Your task to perform on an android device: check battery use Image 0: 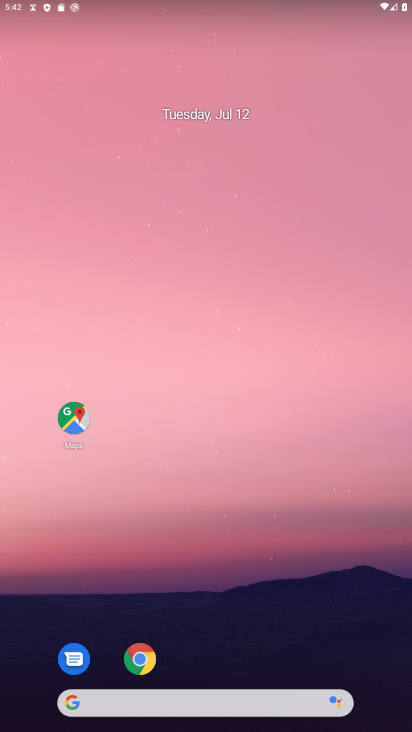
Step 0: drag from (238, 652) to (237, 24)
Your task to perform on an android device: check battery use Image 1: 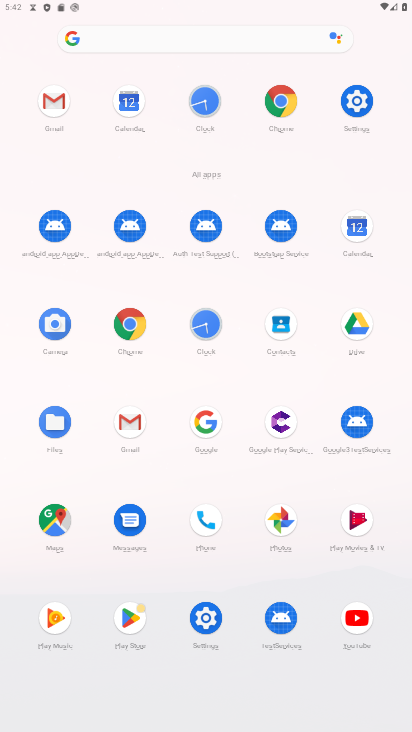
Step 1: click (210, 622)
Your task to perform on an android device: check battery use Image 2: 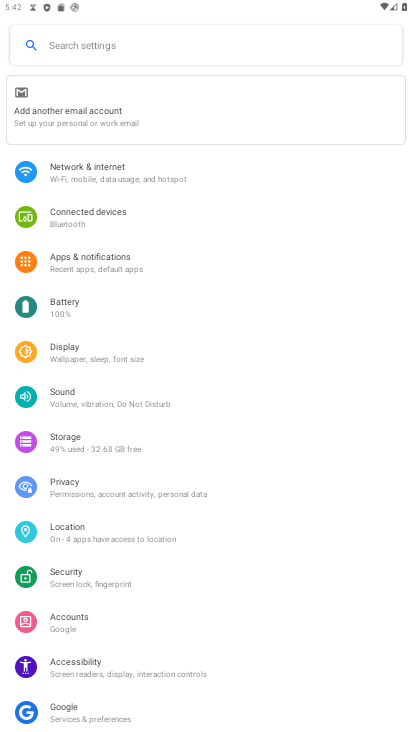
Step 2: click (91, 300)
Your task to perform on an android device: check battery use Image 3: 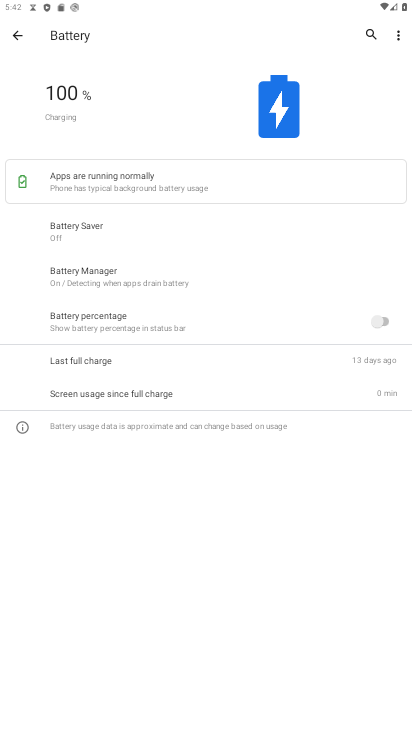
Step 3: click (400, 37)
Your task to perform on an android device: check battery use Image 4: 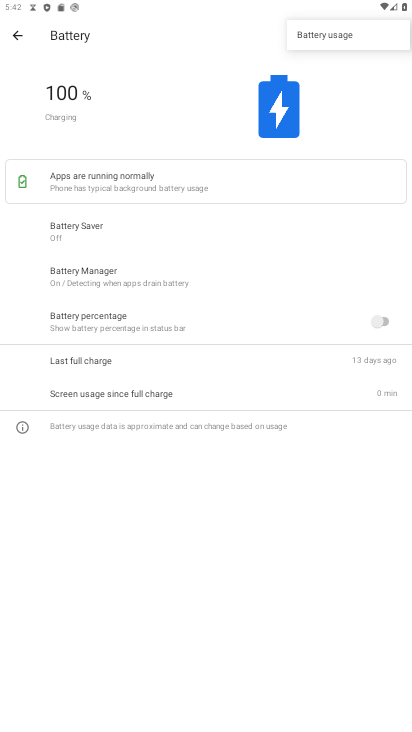
Step 4: click (396, 41)
Your task to perform on an android device: check battery use Image 5: 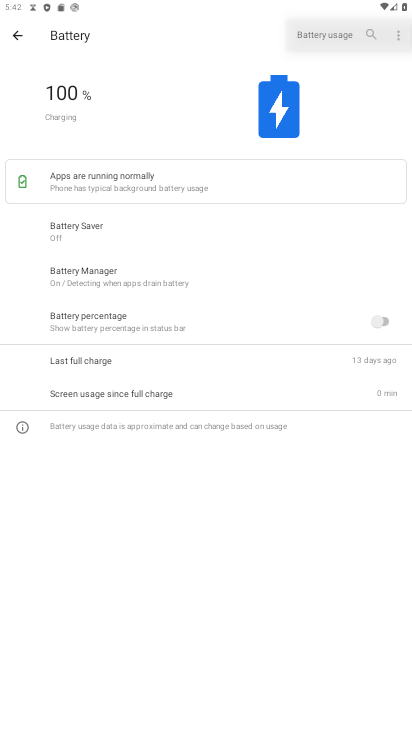
Step 5: click (397, 37)
Your task to perform on an android device: check battery use Image 6: 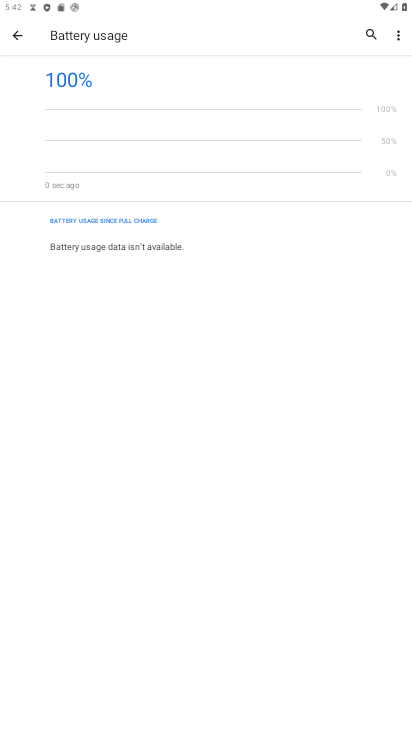
Step 6: click (397, 37)
Your task to perform on an android device: check battery use Image 7: 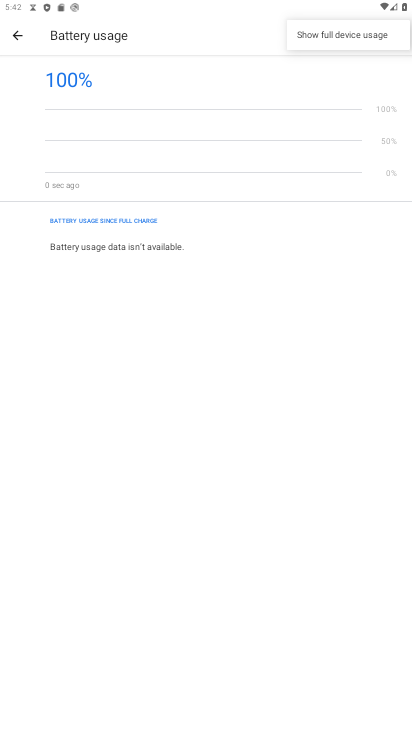
Step 7: task complete